Your task to perform on an android device: Clear the shopping cart on bestbuy. Add "logitech g pro" to the cart on bestbuy Image 0: 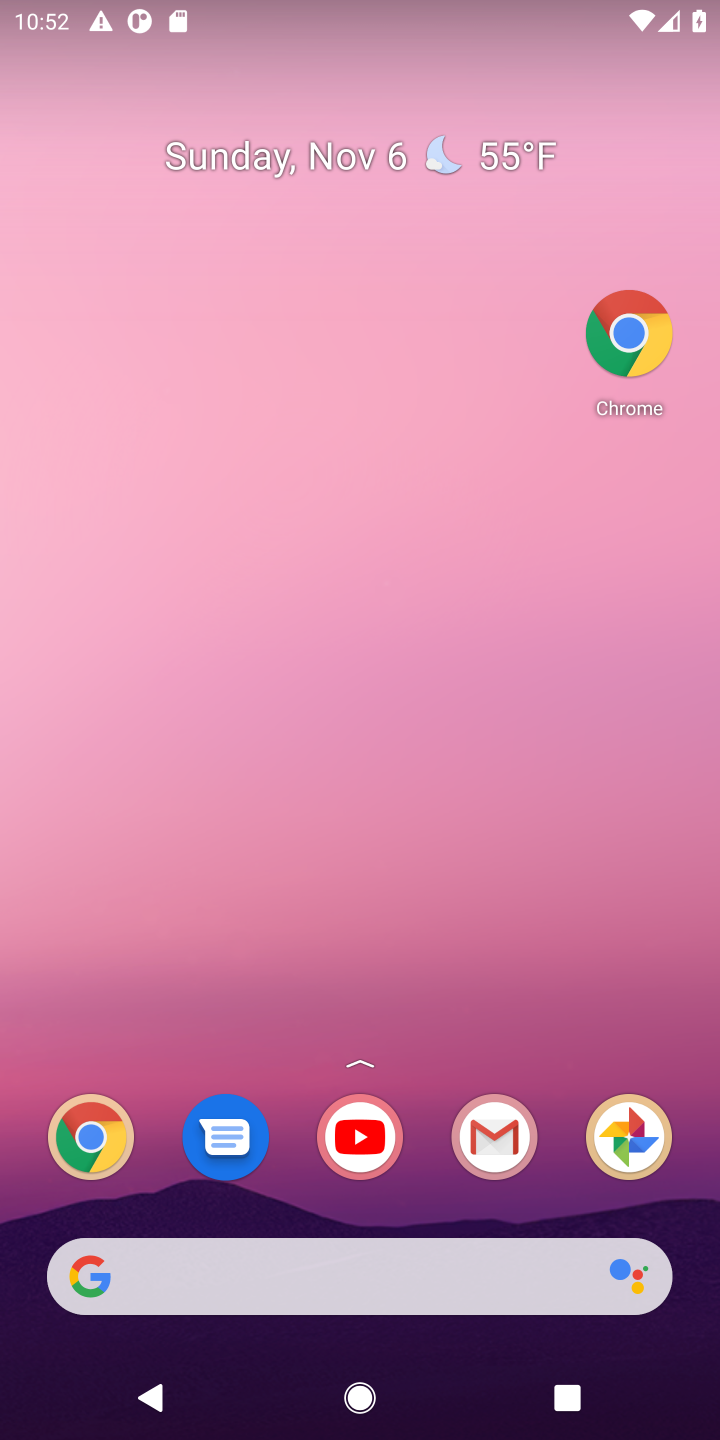
Step 0: drag from (390, 1004) to (247, 201)
Your task to perform on an android device: Clear the shopping cart on bestbuy. Add "logitech g pro" to the cart on bestbuy Image 1: 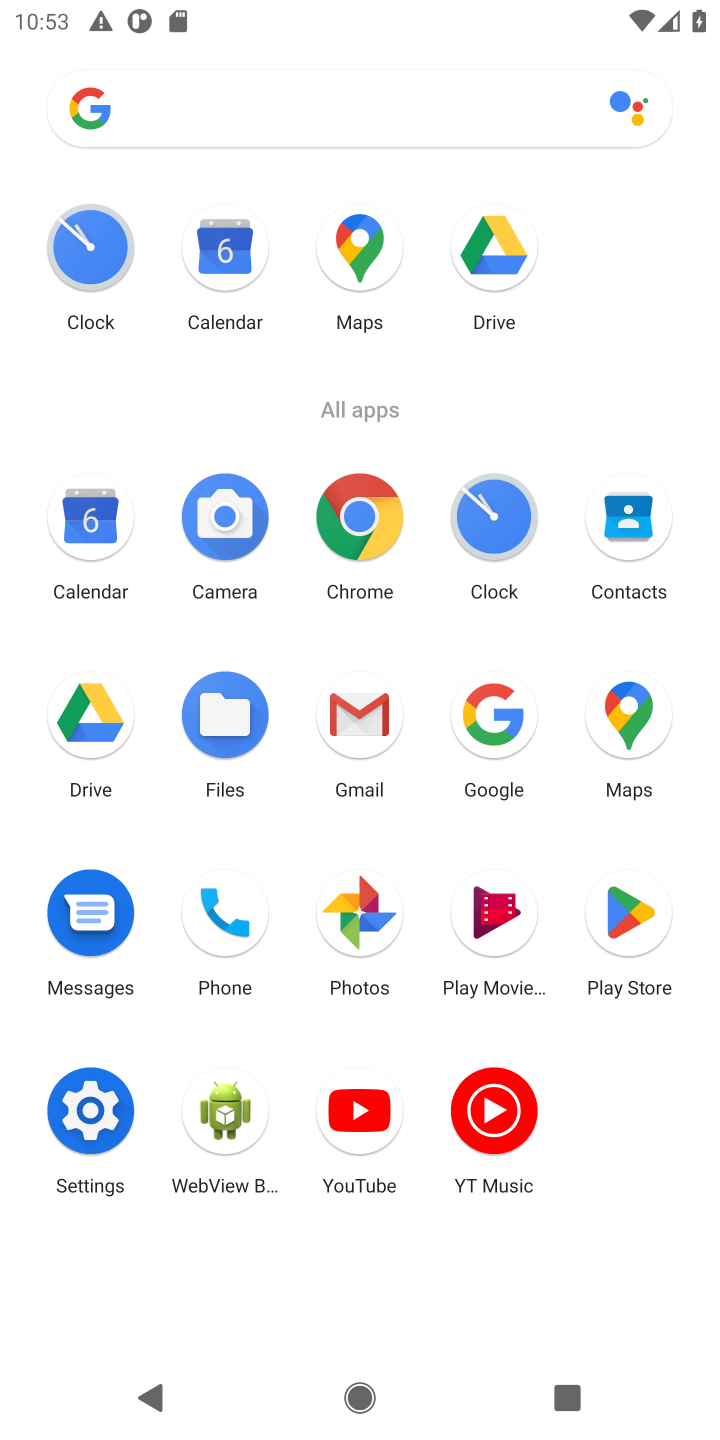
Step 1: click (374, 505)
Your task to perform on an android device: Clear the shopping cart on bestbuy. Add "logitech g pro" to the cart on bestbuy Image 2: 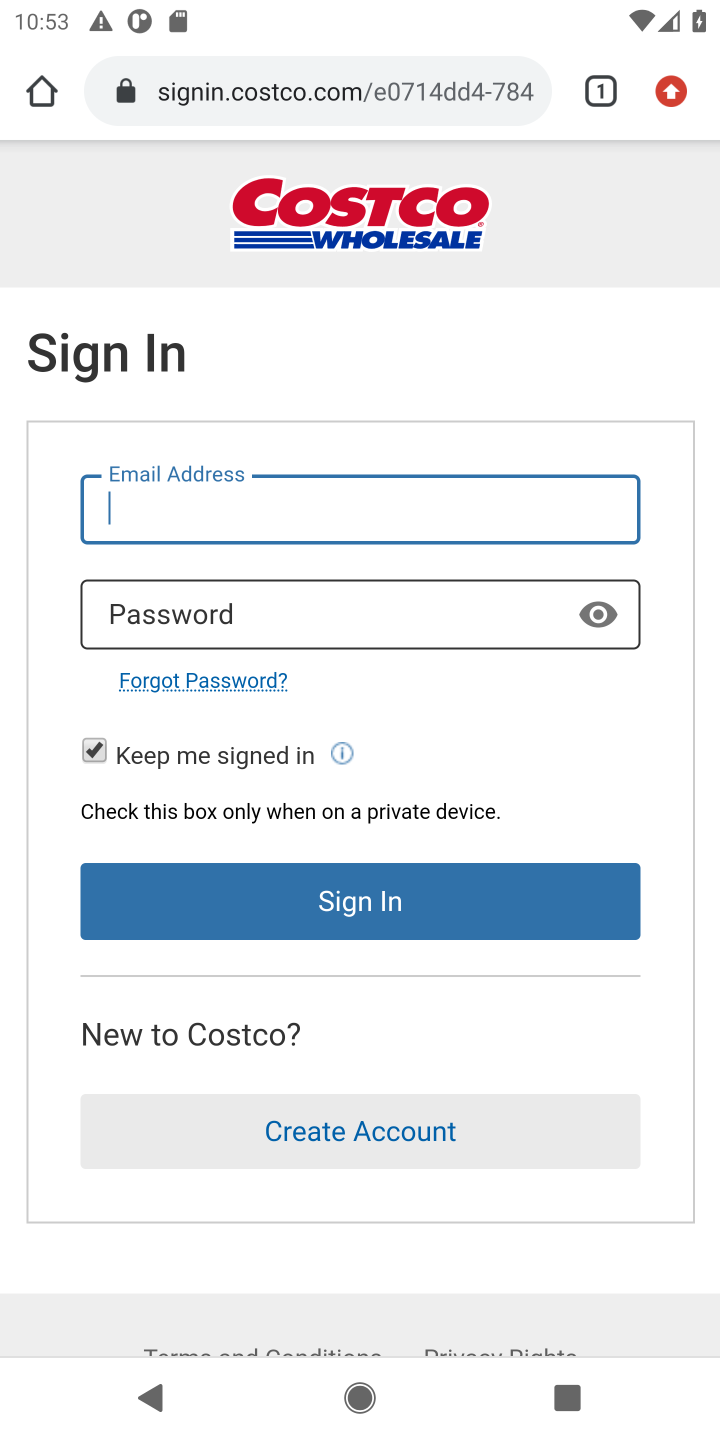
Step 2: click (372, 78)
Your task to perform on an android device: Clear the shopping cart on bestbuy. Add "logitech g pro" to the cart on bestbuy Image 3: 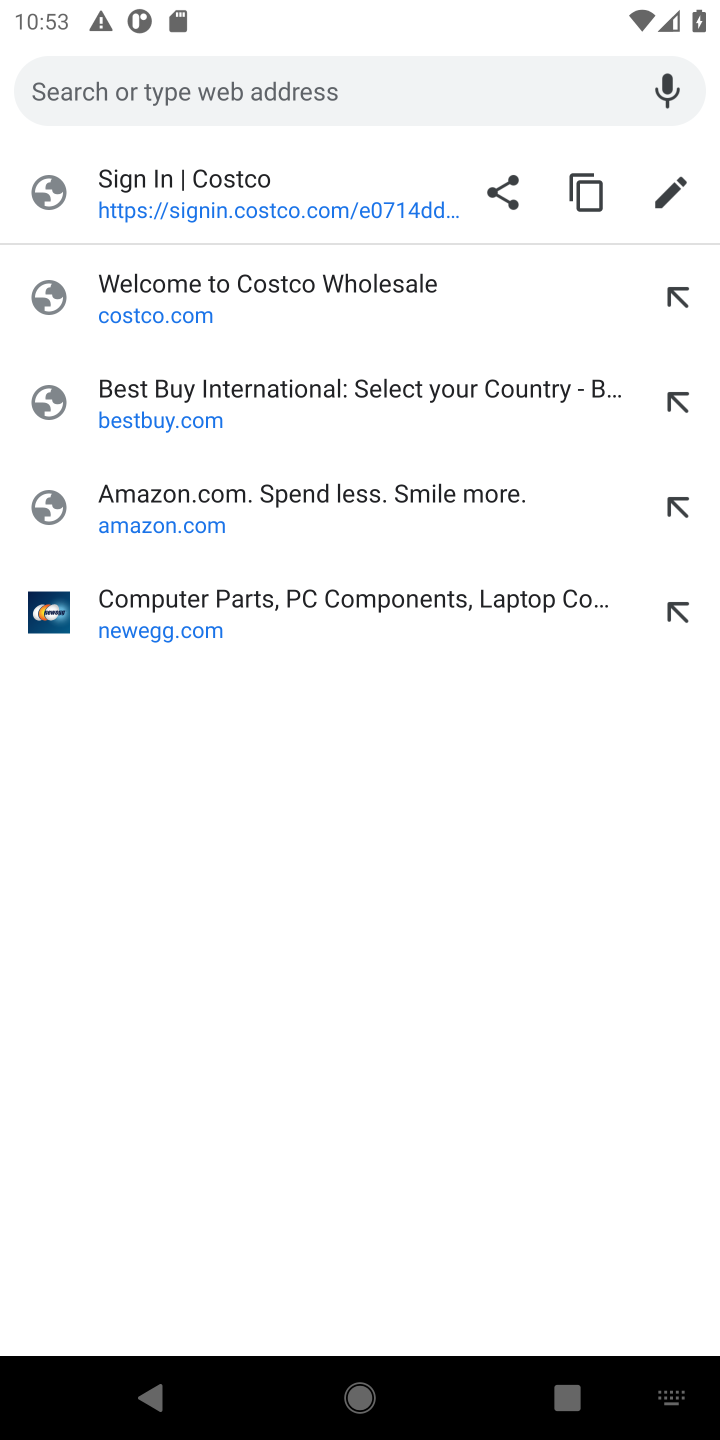
Step 3: type "s"
Your task to perform on an android device: Clear the shopping cart on bestbuy. Add "logitech g pro" to the cart on bestbuy Image 4: 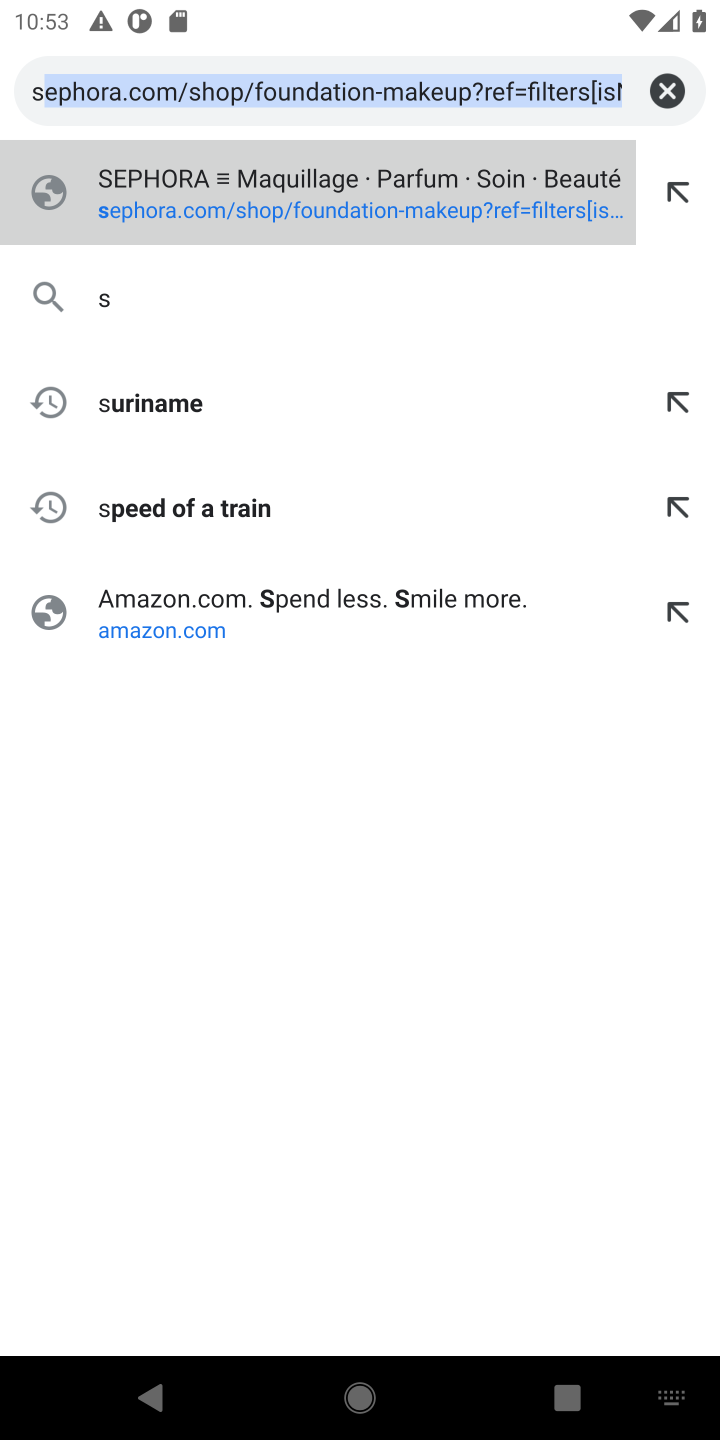
Step 4: click (667, 107)
Your task to perform on an android device: Clear the shopping cart on bestbuy. Add "logitech g pro" to the cart on bestbuy Image 5: 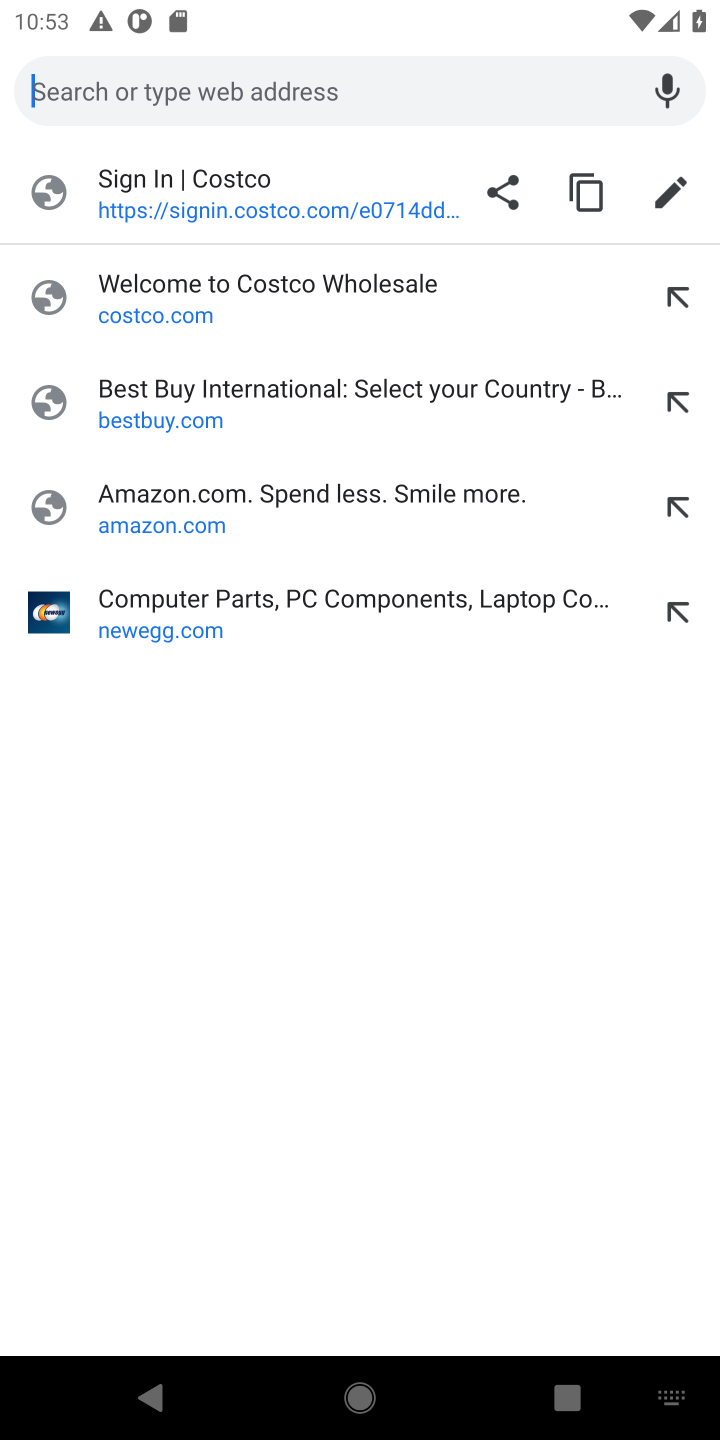
Step 5: type "bestbuy.com"
Your task to perform on an android device: Clear the shopping cart on bestbuy. Add "logitech g pro" to the cart on bestbuy Image 6: 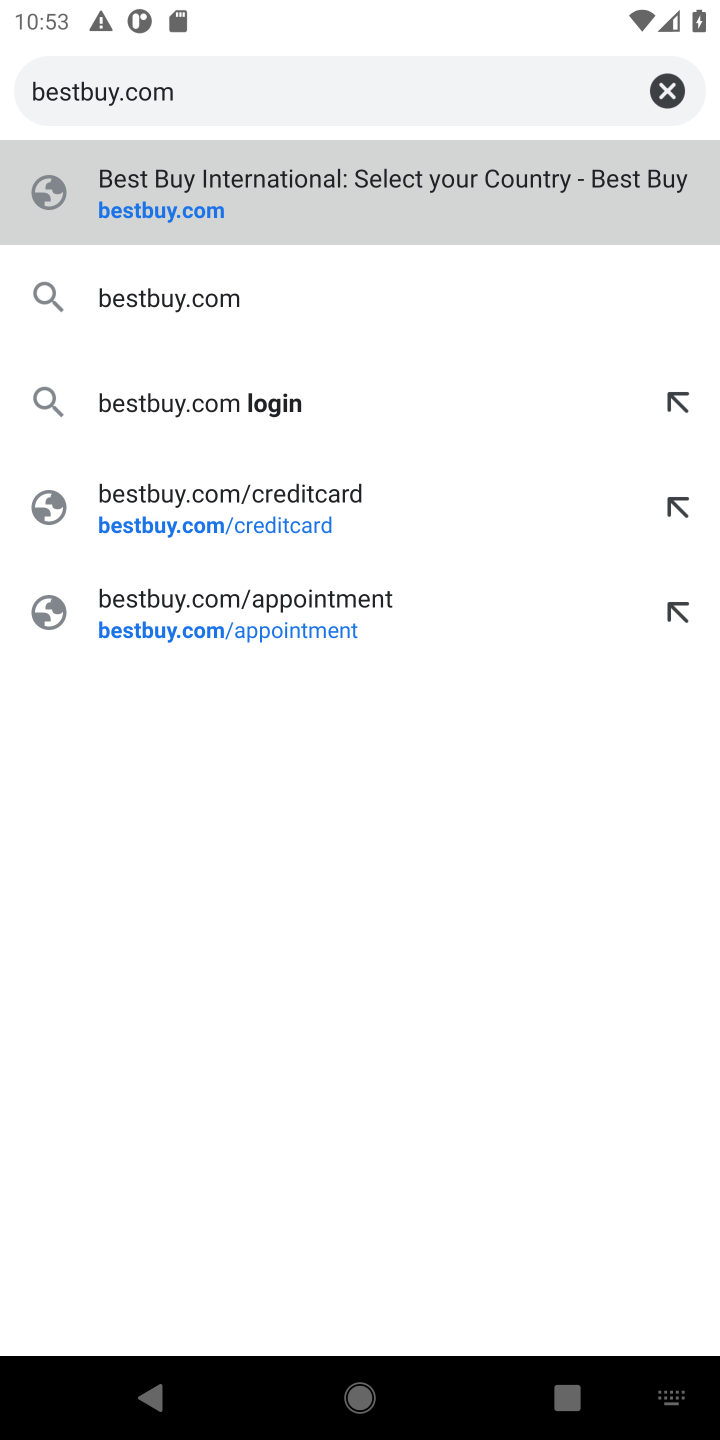
Step 6: press enter
Your task to perform on an android device: Clear the shopping cart on bestbuy. Add "logitech g pro" to the cart on bestbuy Image 7: 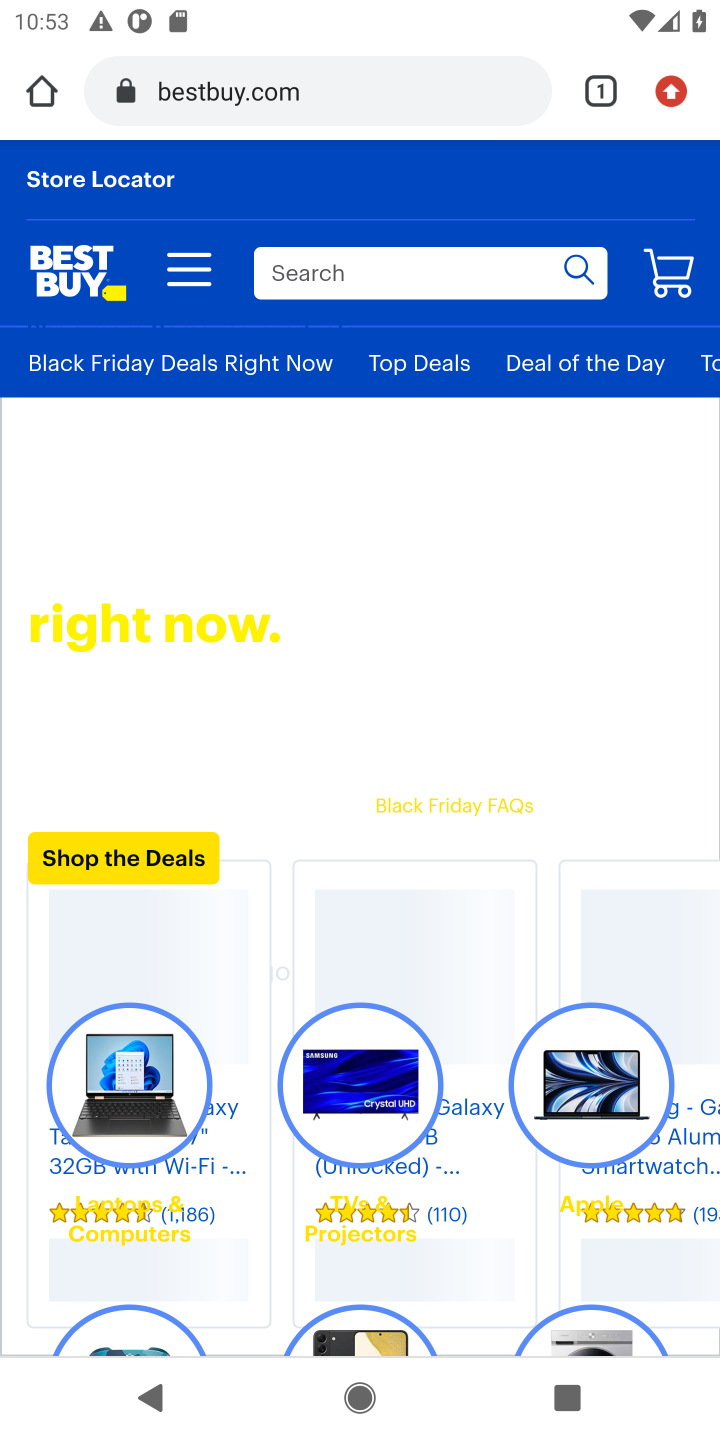
Step 7: click (650, 281)
Your task to perform on an android device: Clear the shopping cart on bestbuy. Add "logitech g pro" to the cart on bestbuy Image 8: 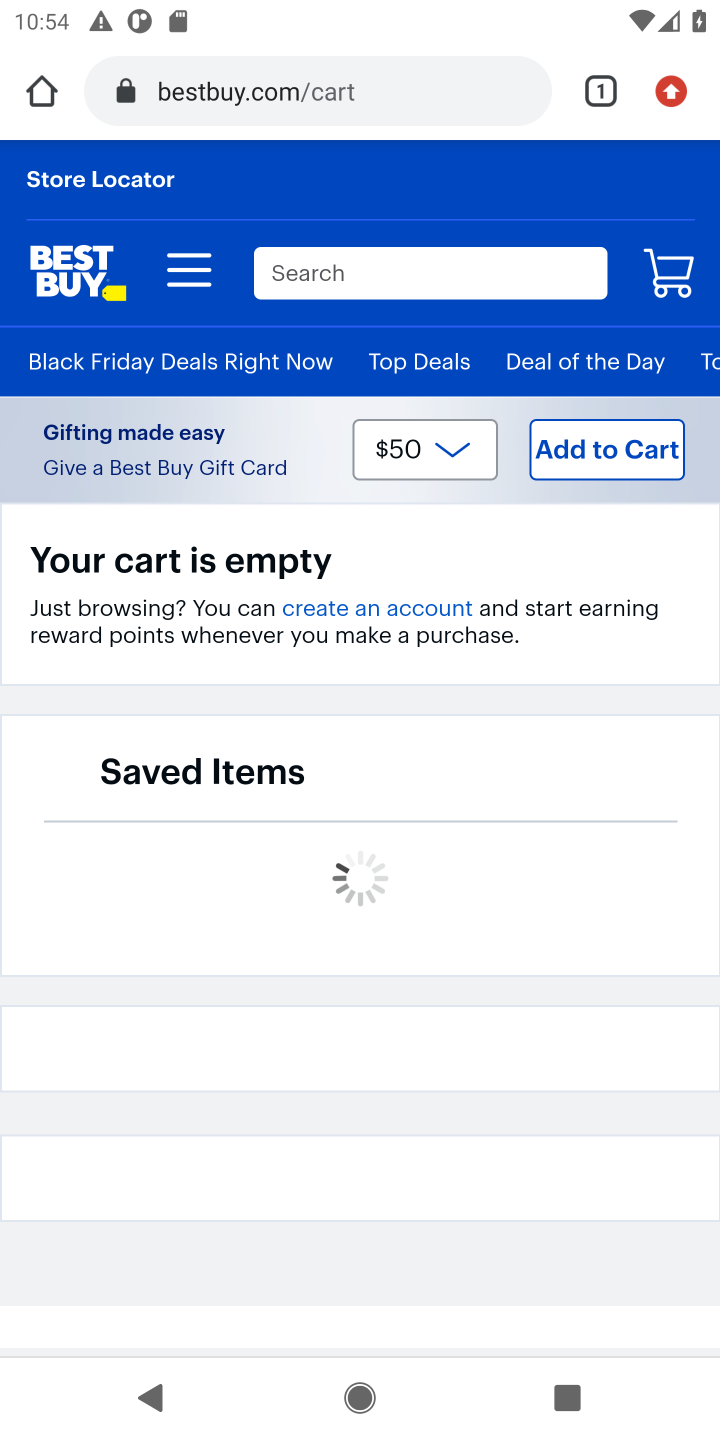
Step 8: click (516, 279)
Your task to perform on an android device: Clear the shopping cart on bestbuy. Add "logitech g pro" to the cart on bestbuy Image 9: 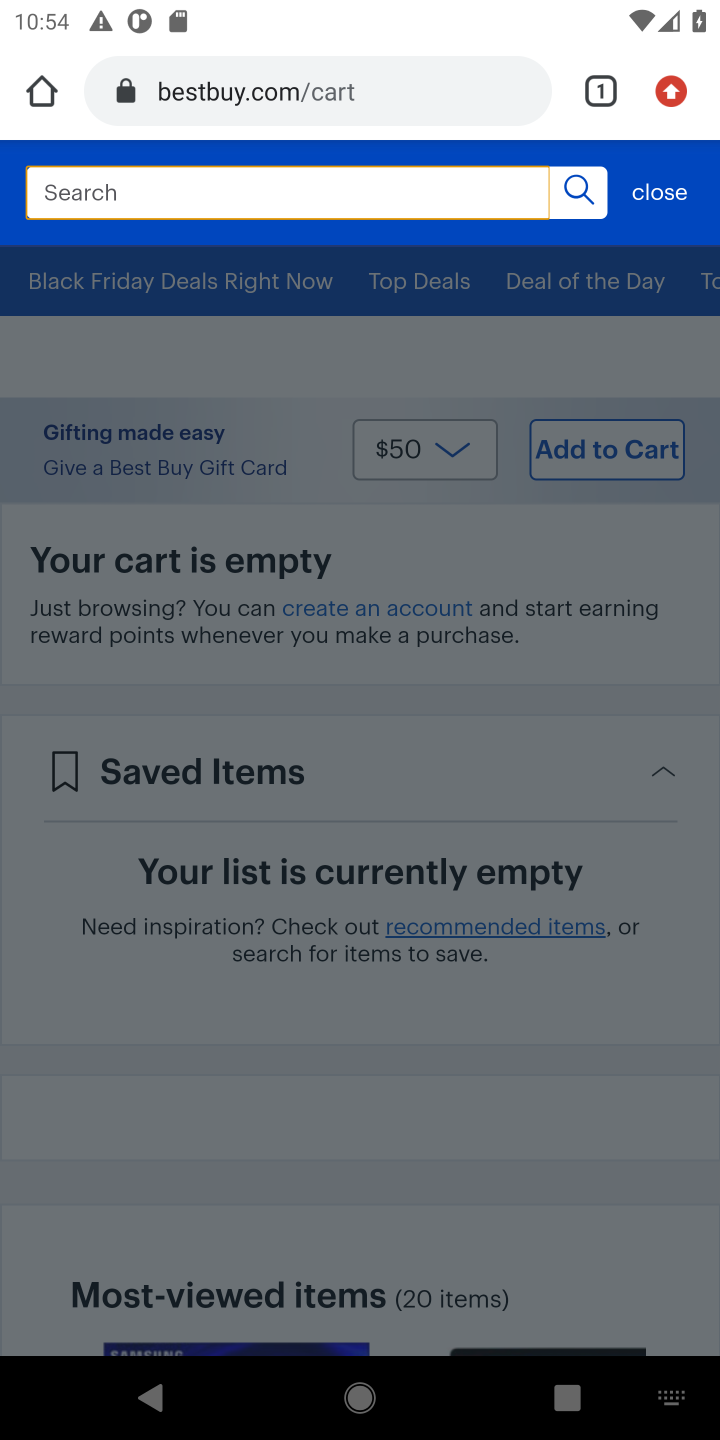
Step 9: type "logitech g pro"
Your task to perform on an android device: Clear the shopping cart on bestbuy. Add "logitech g pro" to the cart on bestbuy Image 10: 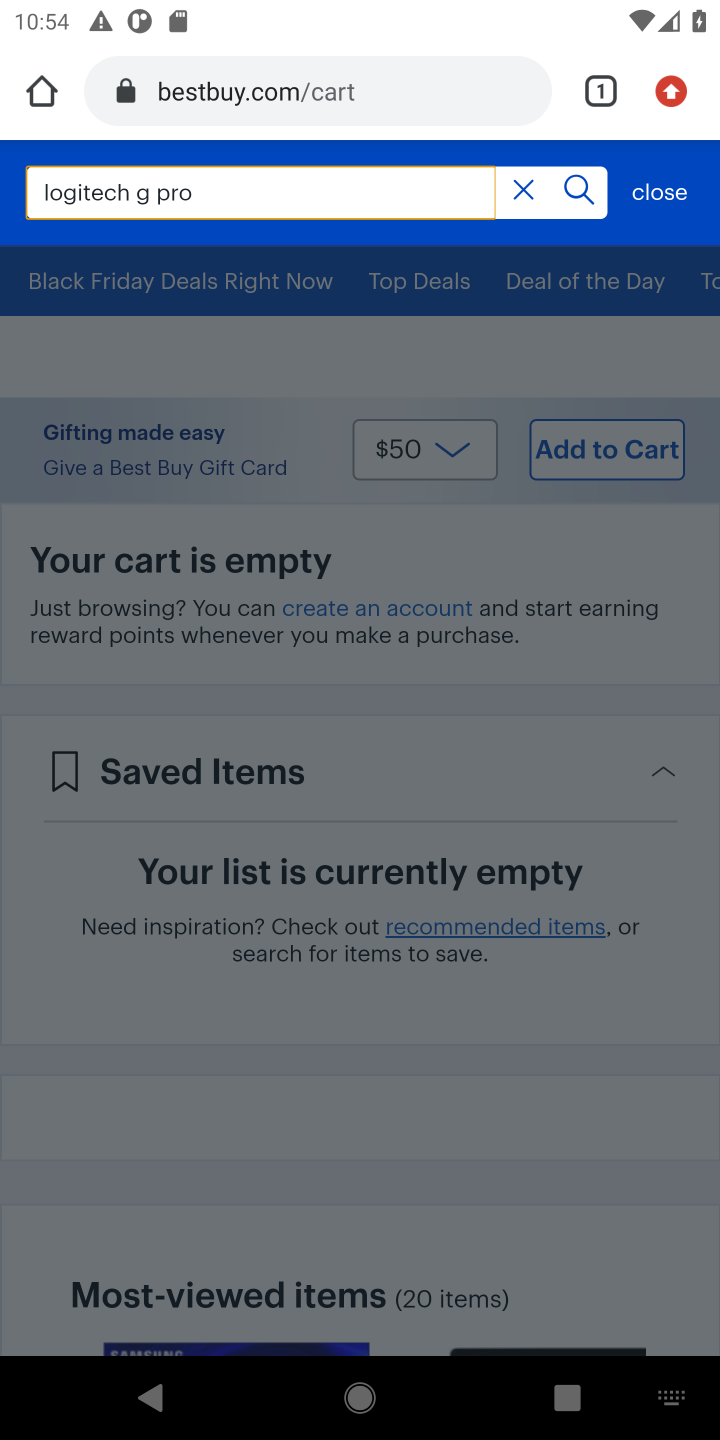
Step 10: press enter
Your task to perform on an android device: Clear the shopping cart on bestbuy. Add "logitech g pro" to the cart on bestbuy Image 11: 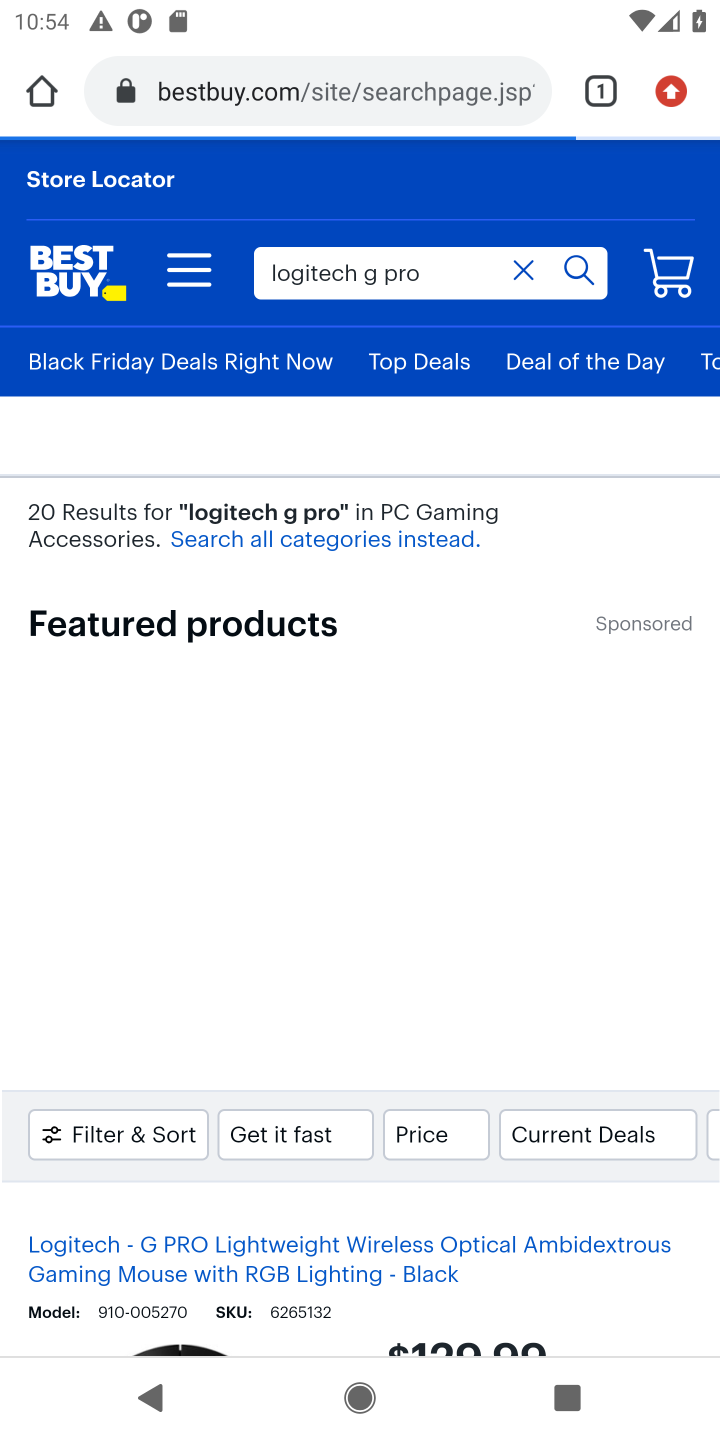
Step 11: drag from (511, 1274) to (430, 529)
Your task to perform on an android device: Clear the shopping cart on bestbuy. Add "logitech g pro" to the cart on bestbuy Image 12: 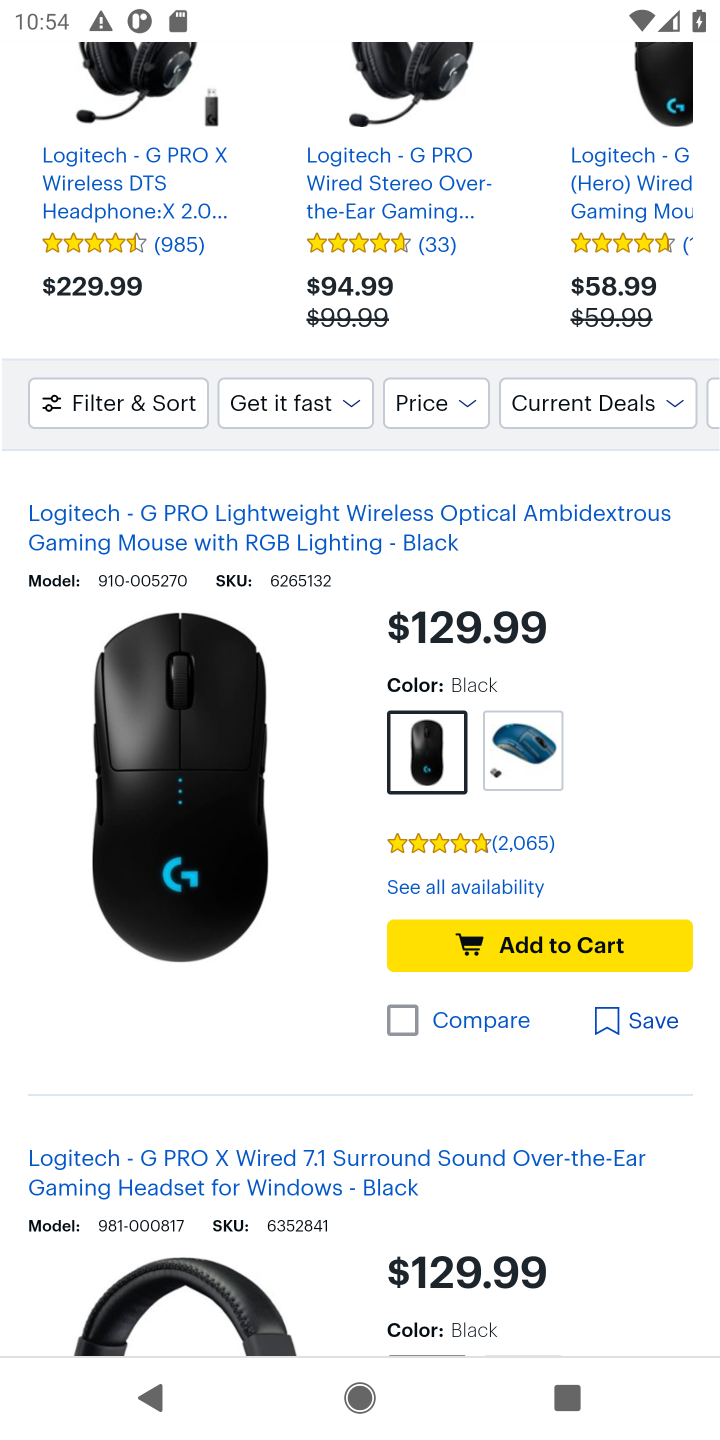
Step 12: click (576, 928)
Your task to perform on an android device: Clear the shopping cart on bestbuy. Add "logitech g pro" to the cart on bestbuy Image 13: 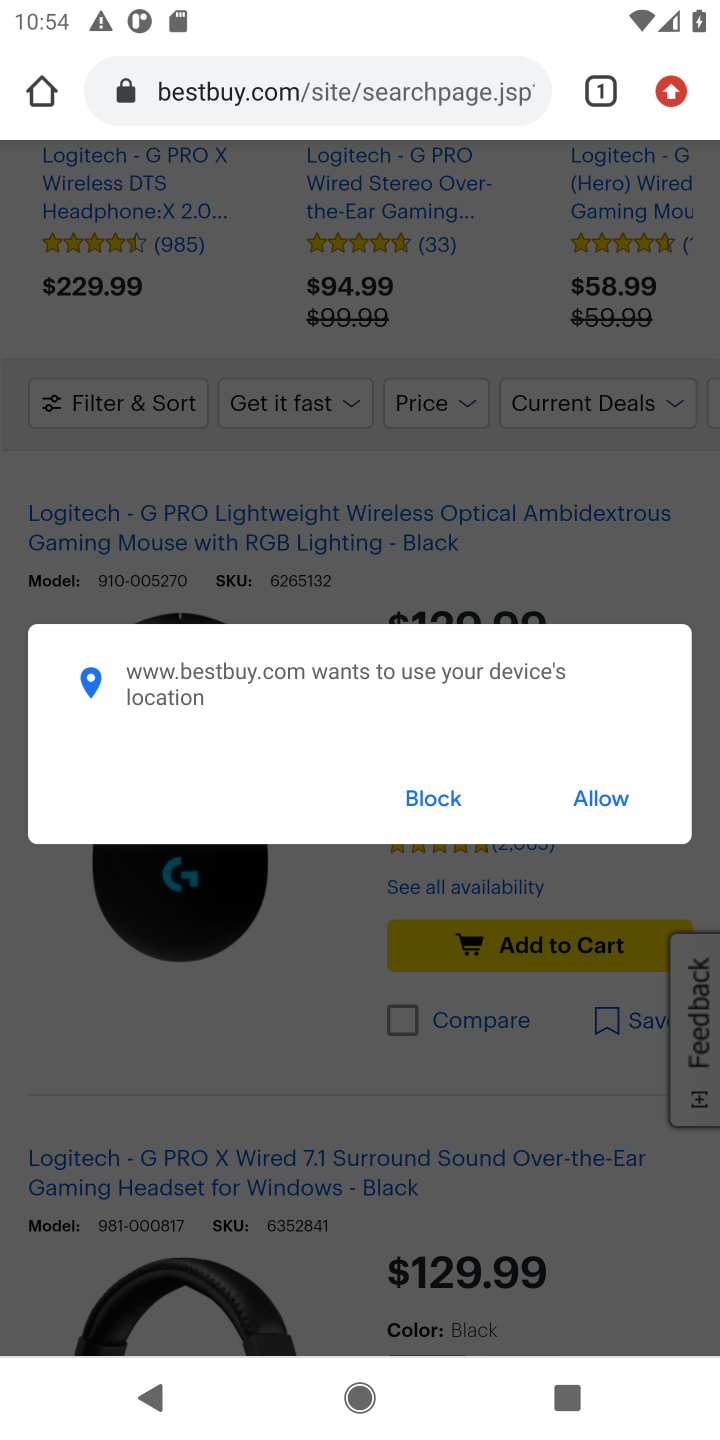
Step 13: click (433, 806)
Your task to perform on an android device: Clear the shopping cart on bestbuy. Add "logitech g pro" to the cart on bestbuy Image 14: 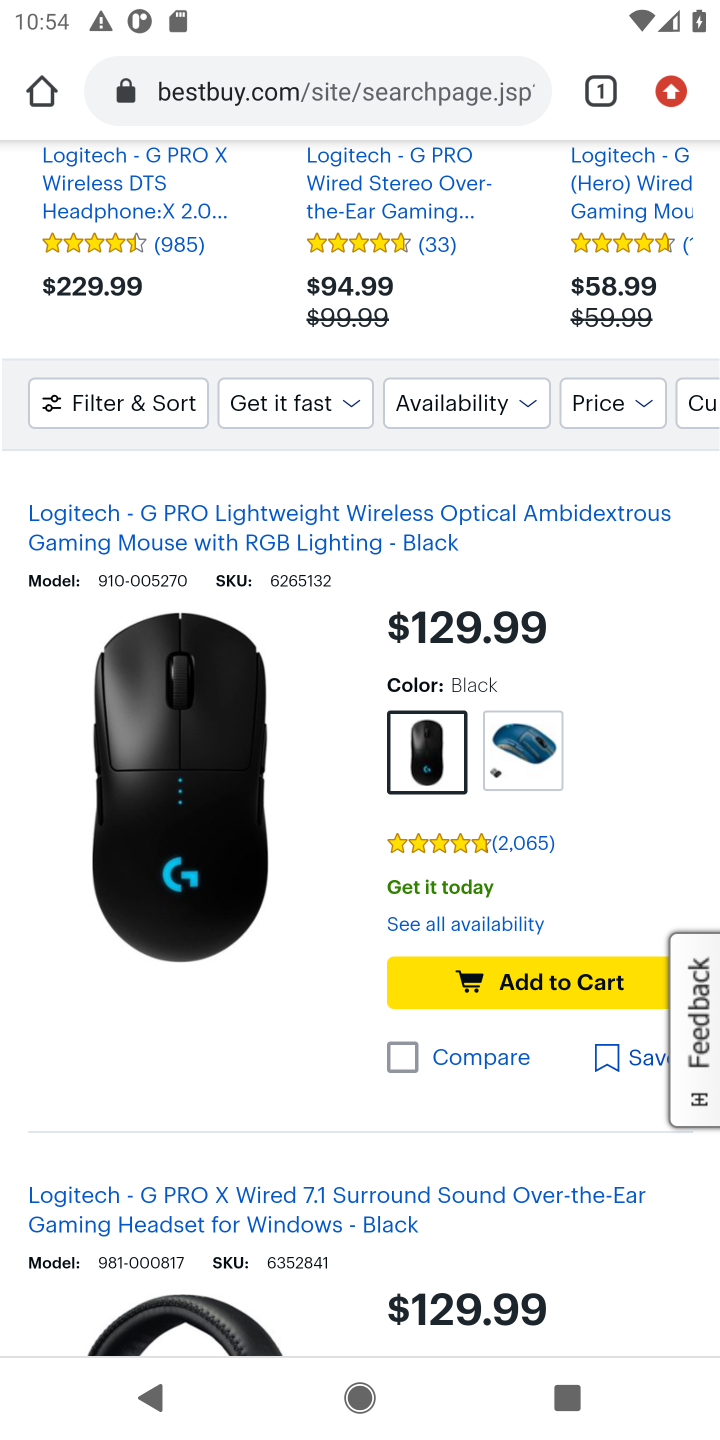
Step 14: click (566, 984)
Your task to perform on an android device: Clear the shopping cart on bestbuy. Add "logitech g pro" to the cart on bestbuy Image 15: 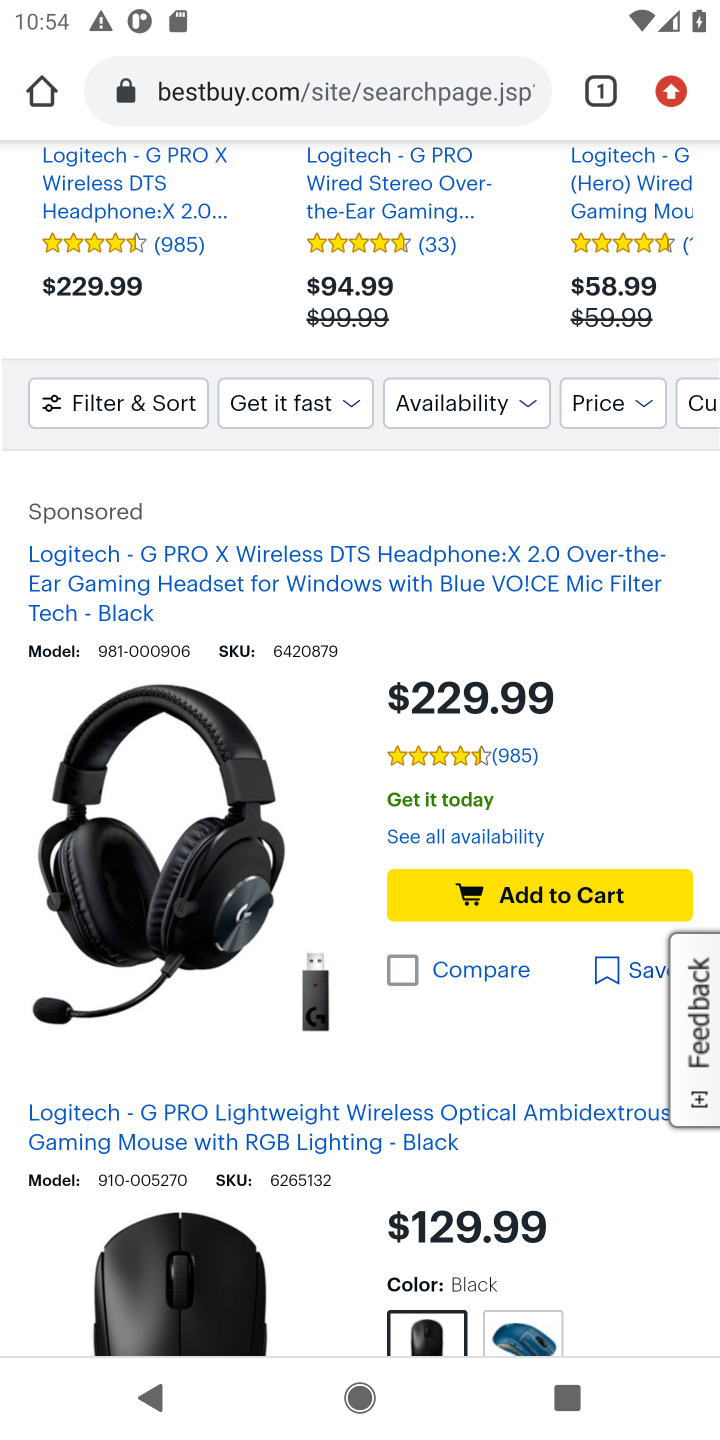
Step 15: click (517, 895)
Your task to perform on an android device: Clear the shopping cart on bestbuy. Add "logitech g pro" to the cart on bestbuy Image 16: 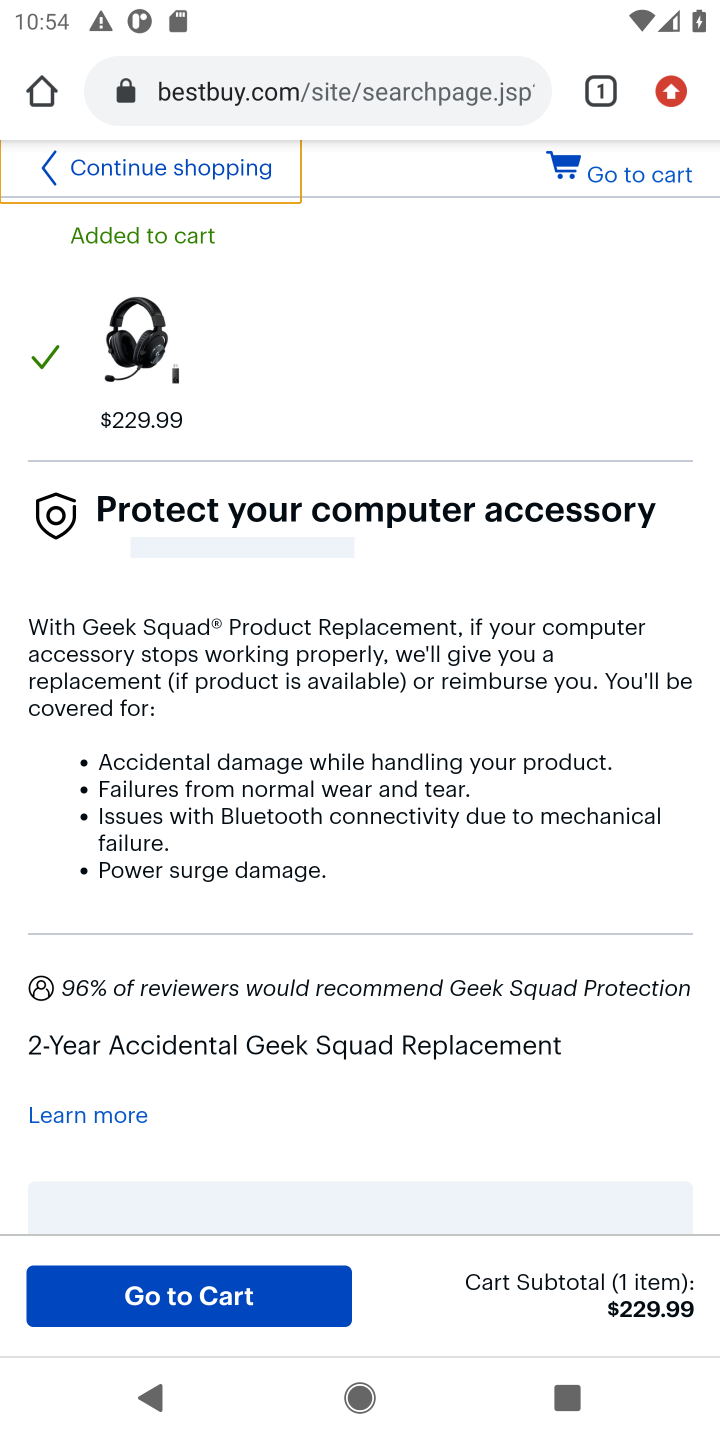
Step 16: task complete